Your task to perform on an android device: refresh tabs in the chrome app Image 0: 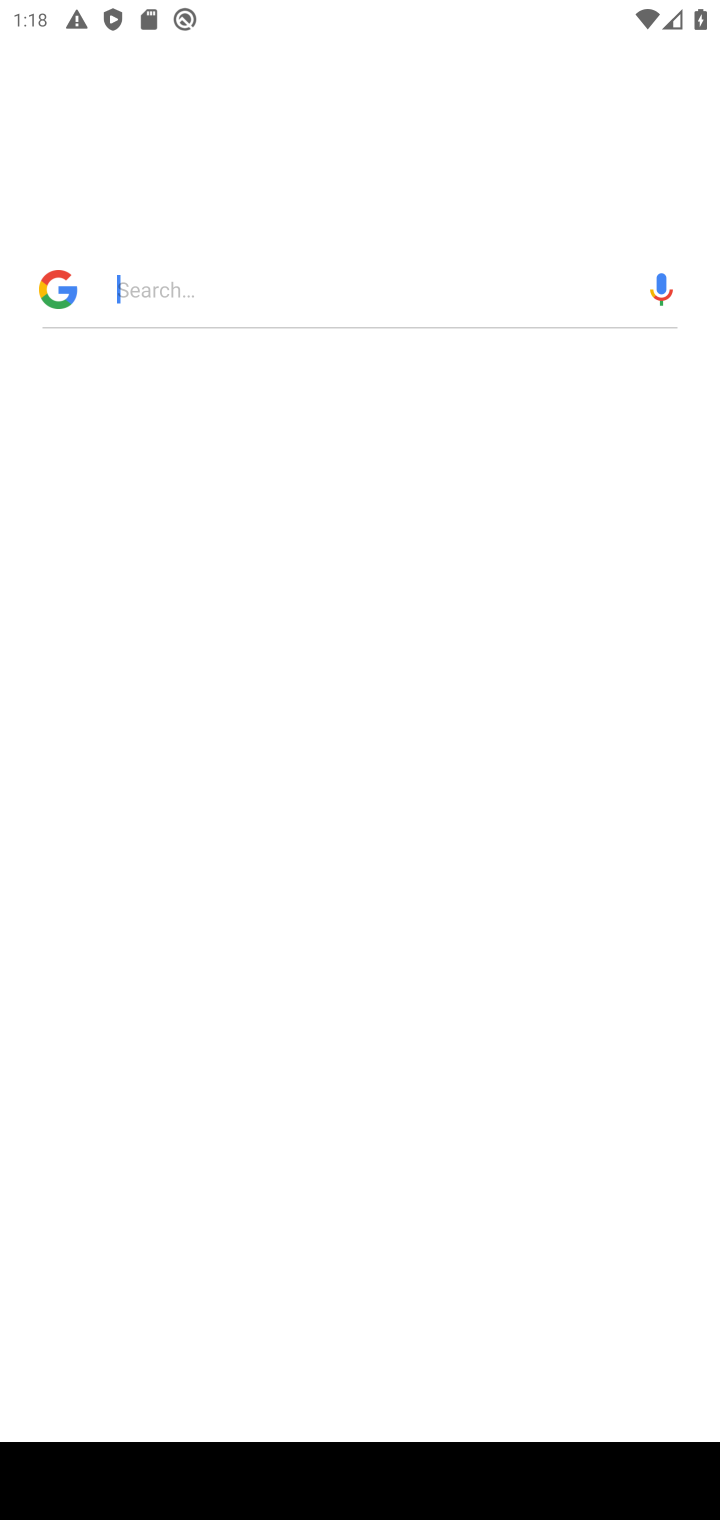
Step 0: press home button
Your task to perform on an android device: refresh tabs in the chrome app Image 1: 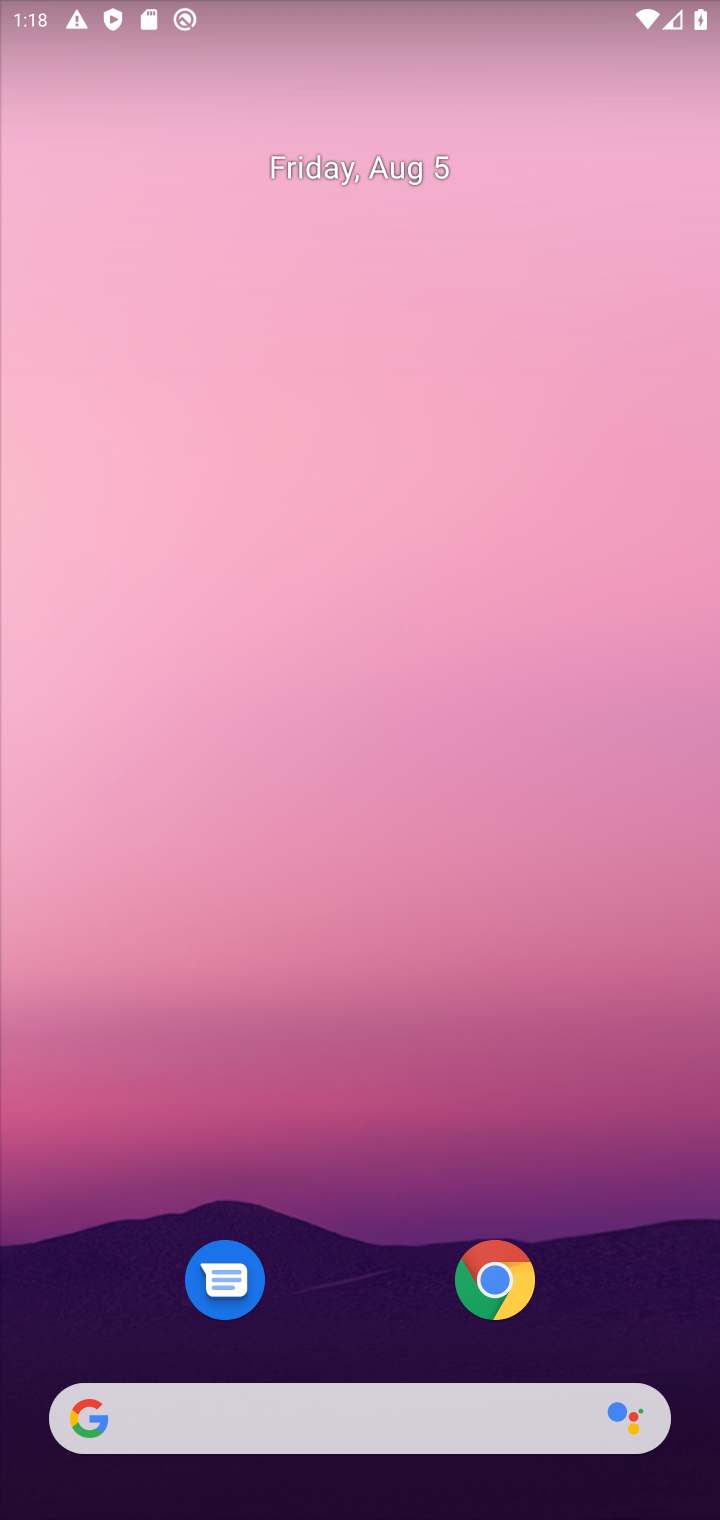
Step 1: click (492, 1276)
Your task to perform on an android device: refresh tabs in the chrome app Image 2: 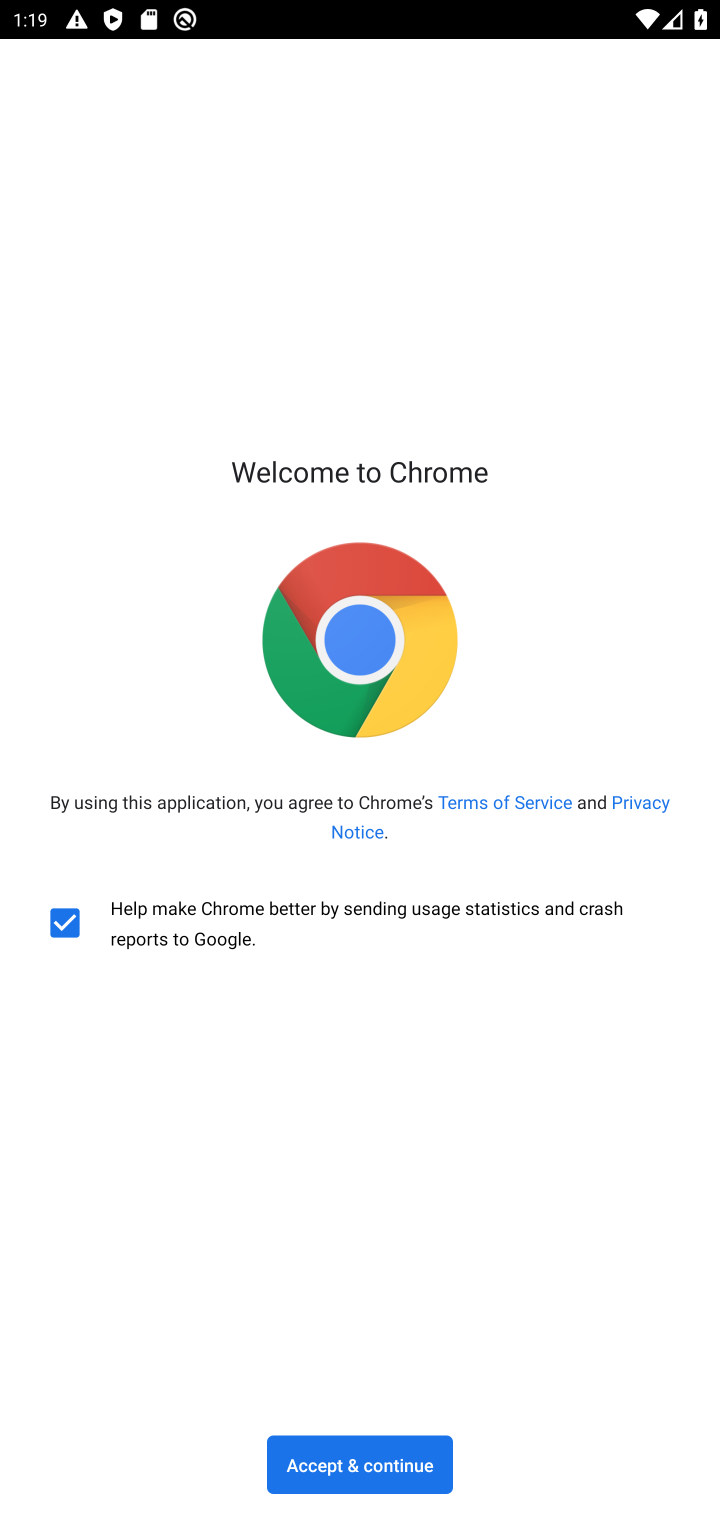
Step 2: click (389, 1463)
Your task to perform on an android device: refresh tabs in the chrome app Image 3: 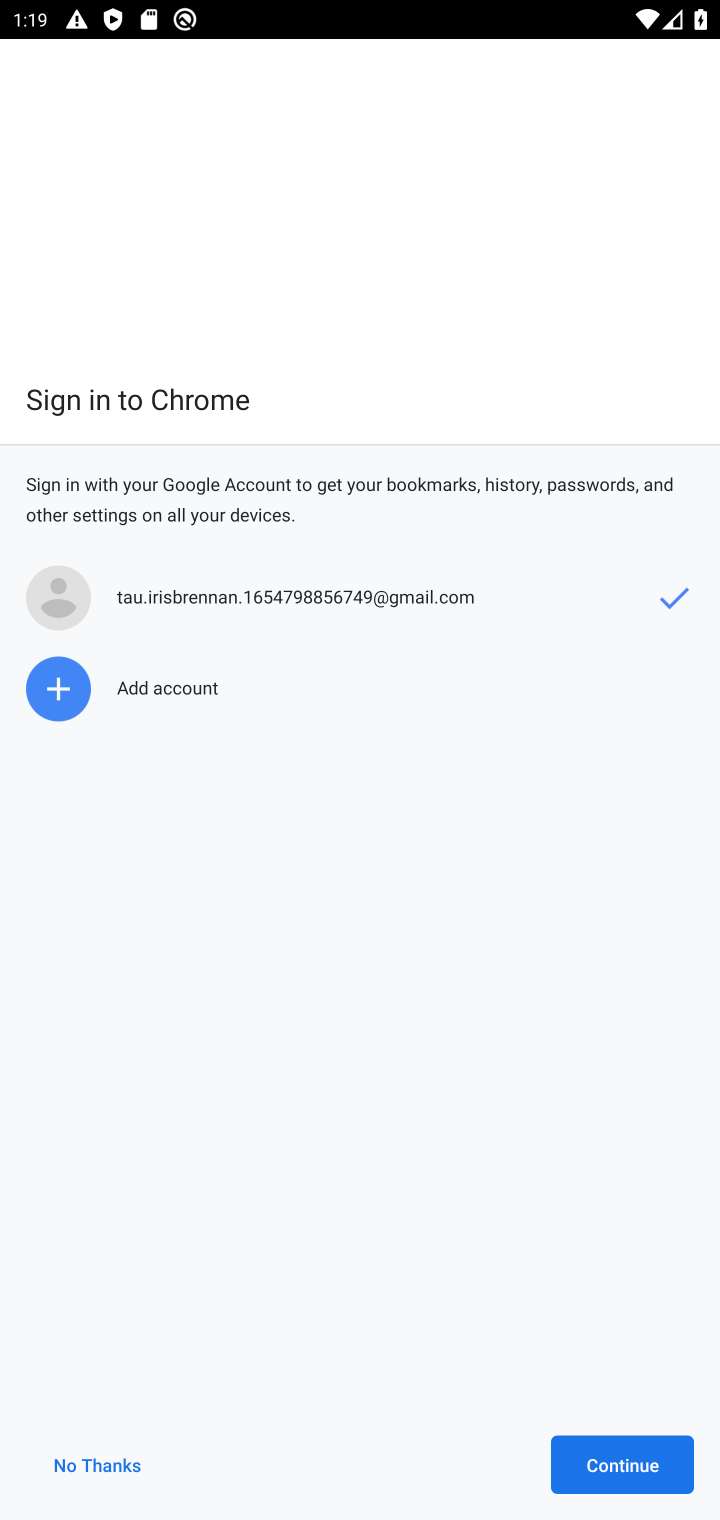
Step 3: click (389, 1463)
Your task to perform on an android device: refresh tabs in the chrome app Image 4: 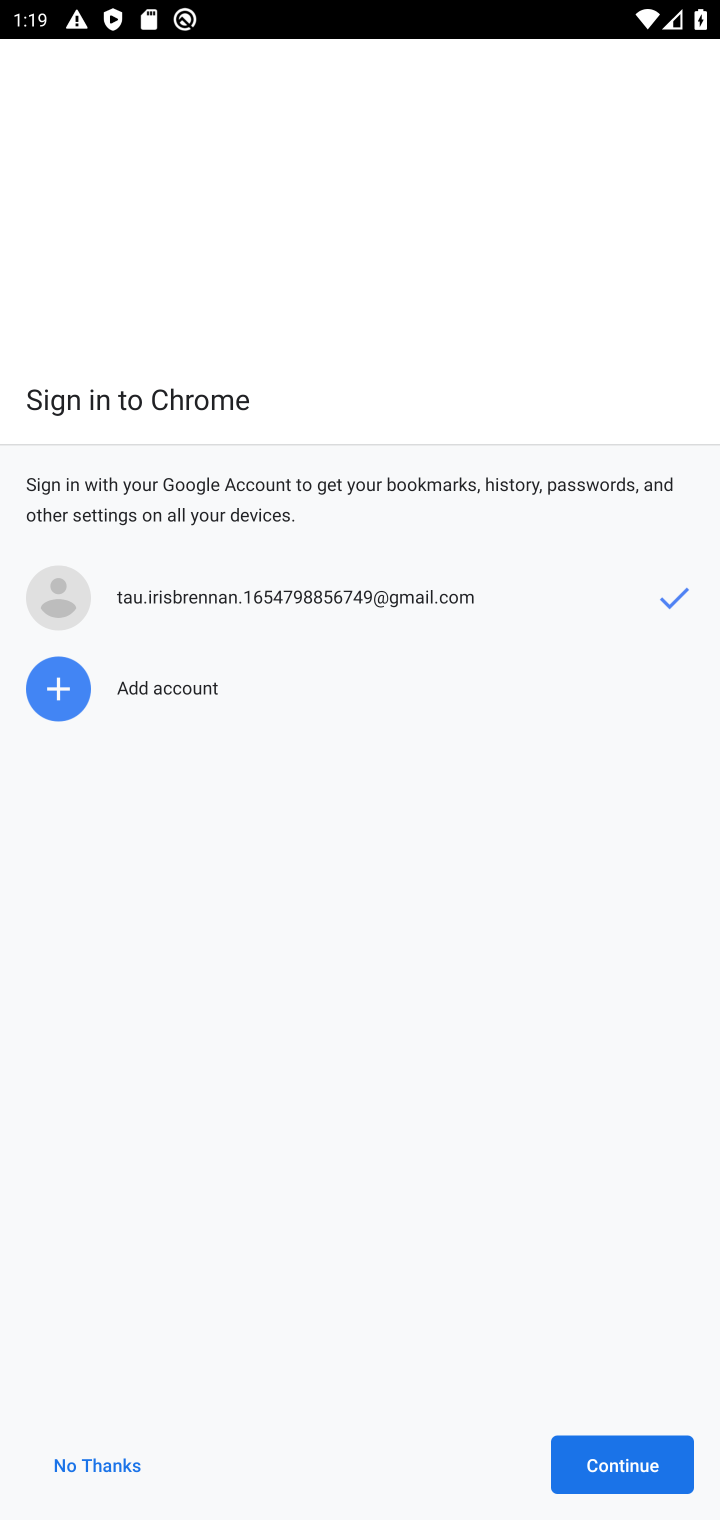
Step 4: click (636, 1460)
Your task to perform on an android device: refresh tabs in the chrome app Image 5: 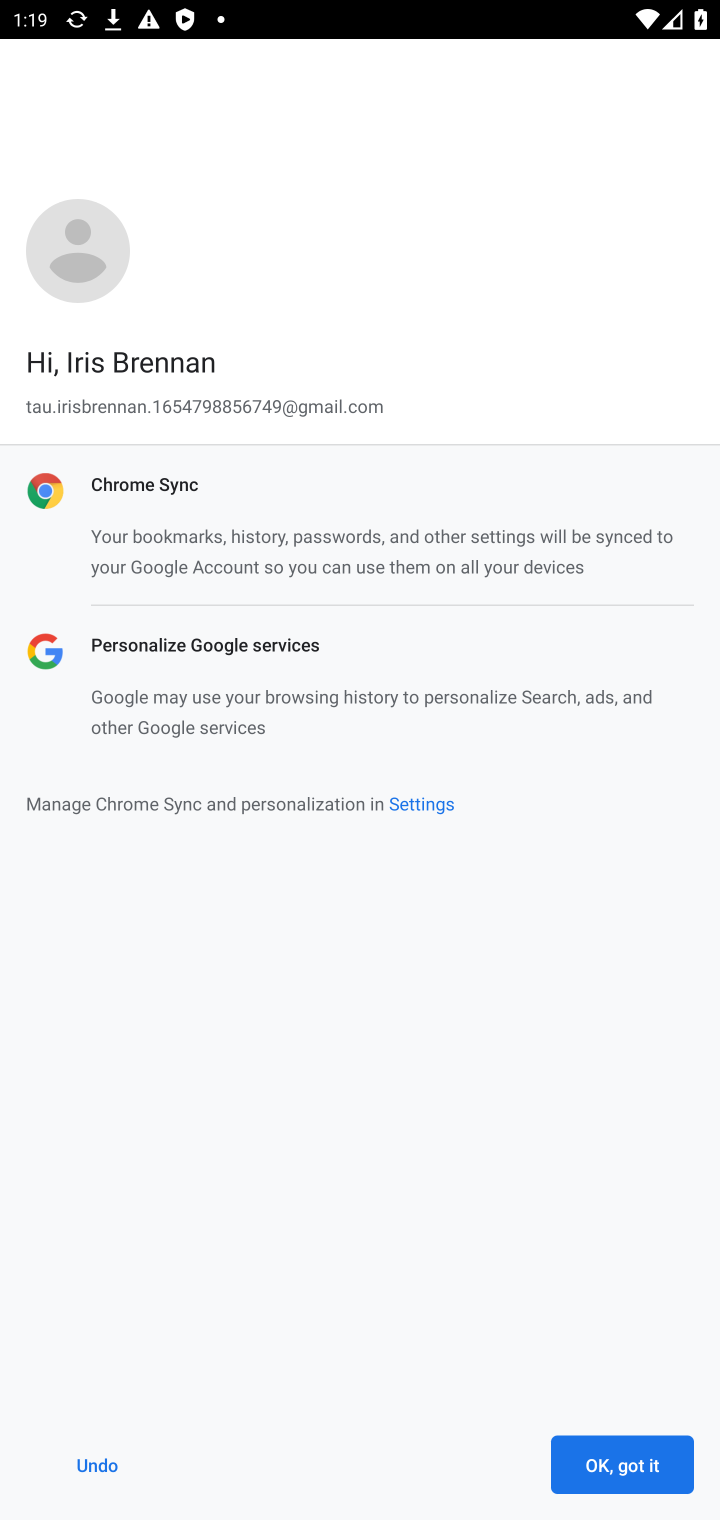
Step 5: click (641, 1473)
Your task to perform on an android device: refresh tabs in the chrome app Image 6: 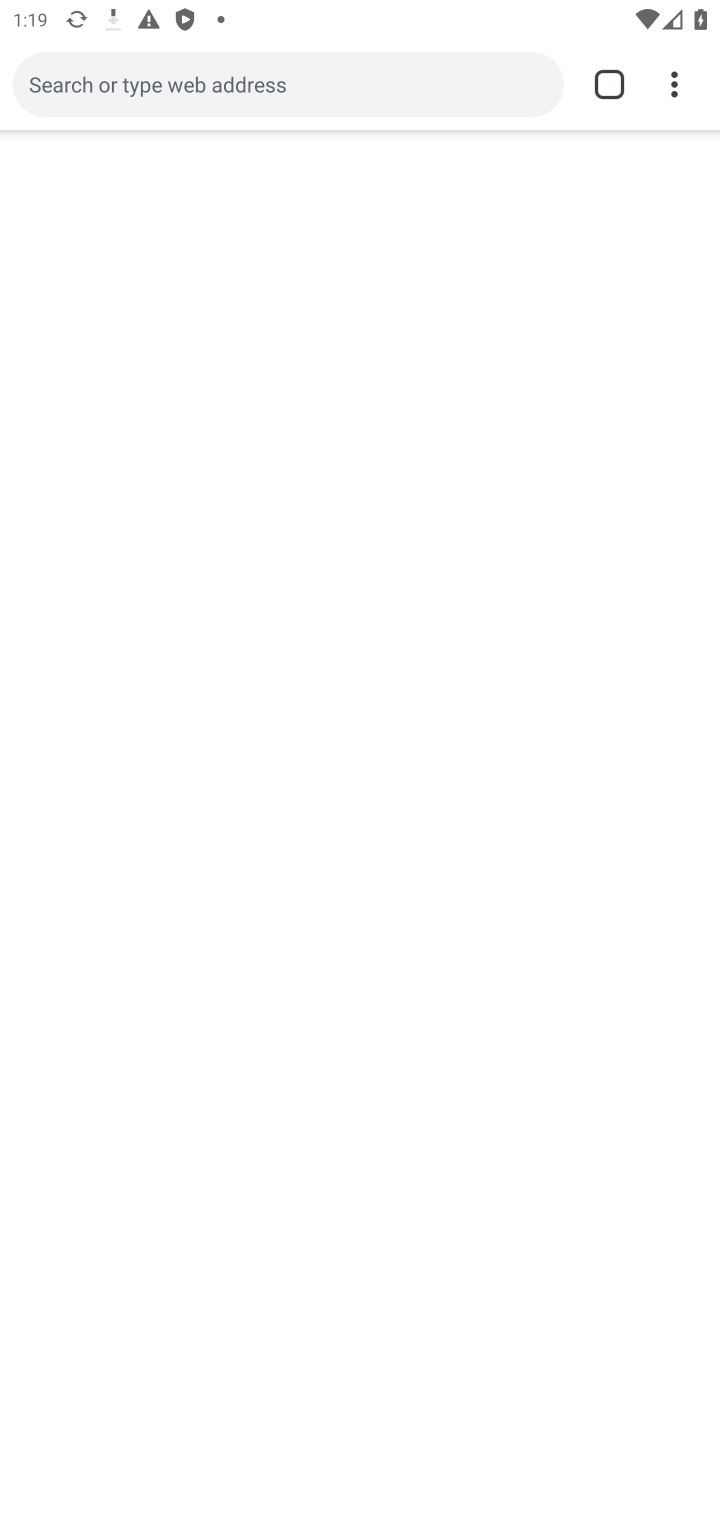
Step 6: click (675, 84)
Your task to perform on an android device: refresh tabs in the chrome app Image 7: 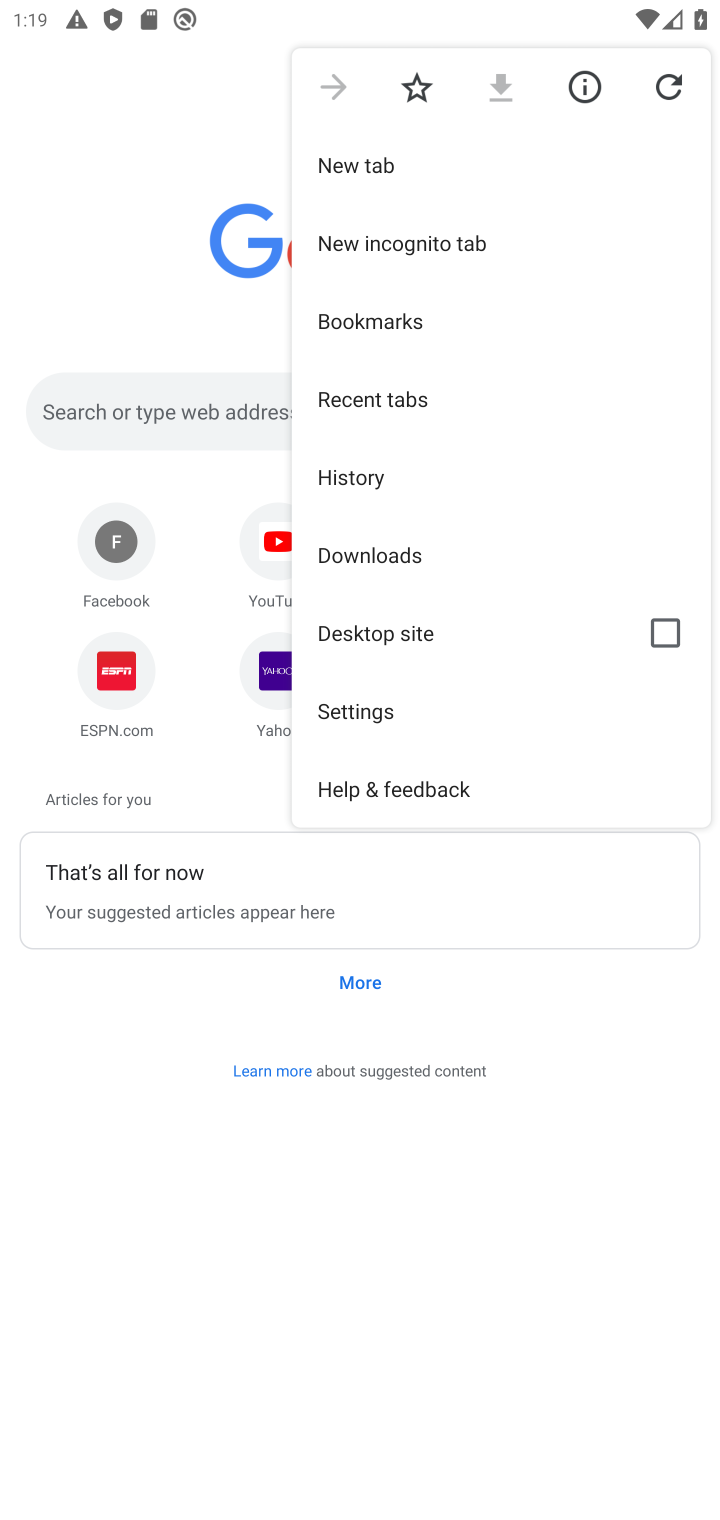
Step 7: click (666, 81)
Your task to perform on an android device: refresh tabs in the chrome app Image 8: 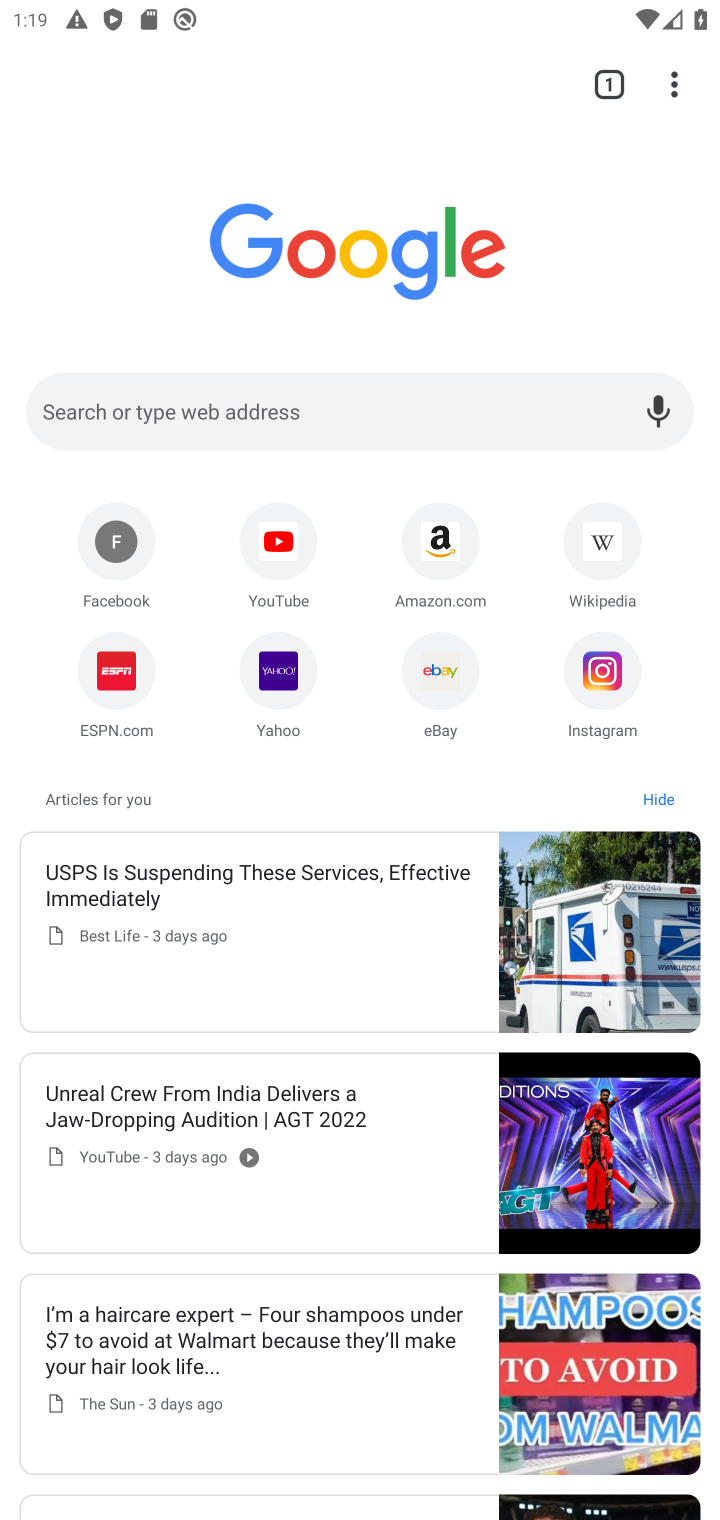
Step 8: task complete